Your task to perform on an android device: Go to Android settings Image 0: 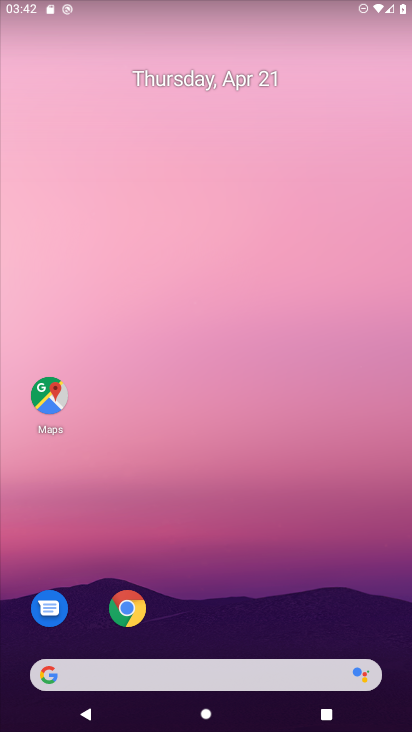
Step 0: drag from (243, 580) to (280, 249)
Your task to perform on an android device: Go to Android settings Image 1: 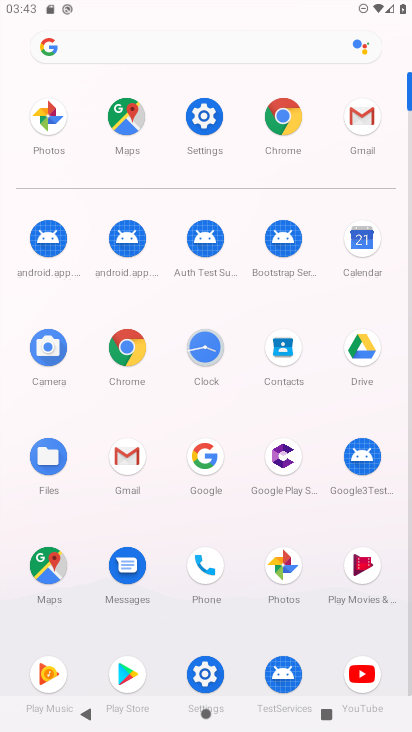
Step 1: click (207, 674)
Your task to perform on an android device: Go to Android settings Image 2: 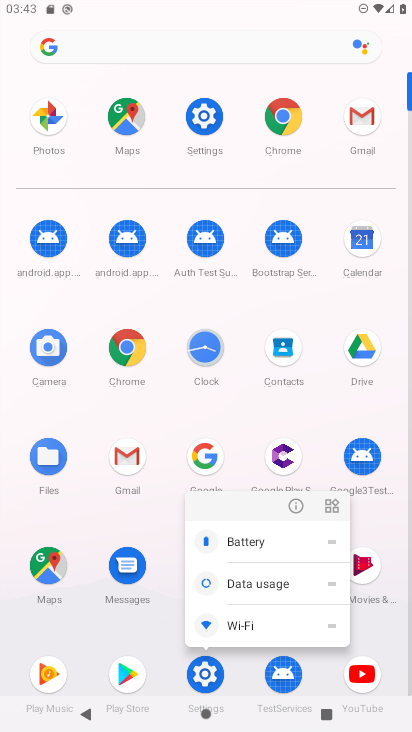
Step 2: click (205, 668)
Your task to perform on an android device: Go to Android settings Image 3: 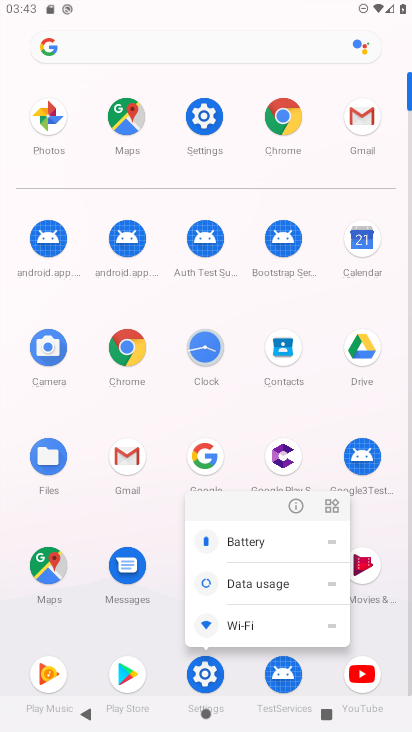
Step 3: click (205, 668)
Your task to perform on an android device: Go to Android settings Image 4: 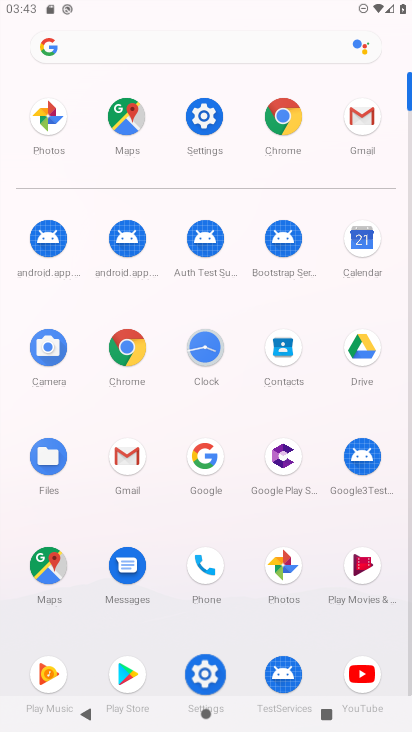
Step 4: click (205, 668)
Your task to perform on an android device: Go to Android settings Image 5: 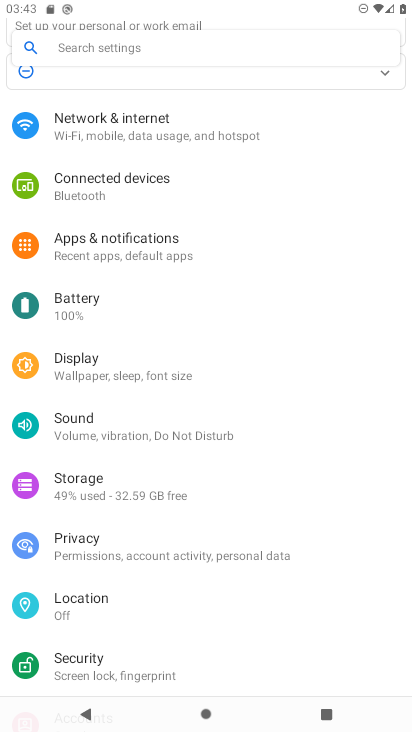
Step 5: click (228, 632)
Your task to perform on an android device: Go to Android settings Image 6: 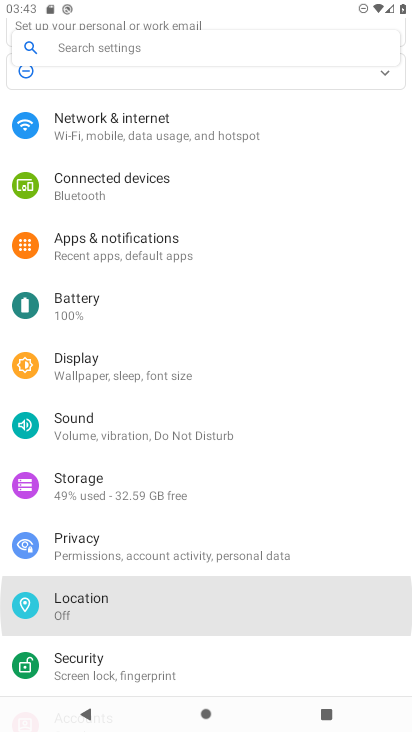
Step 6: drag from (232, 611) to (284, 89)
Your task to perform on an android device: Go to Android settings Image 7: 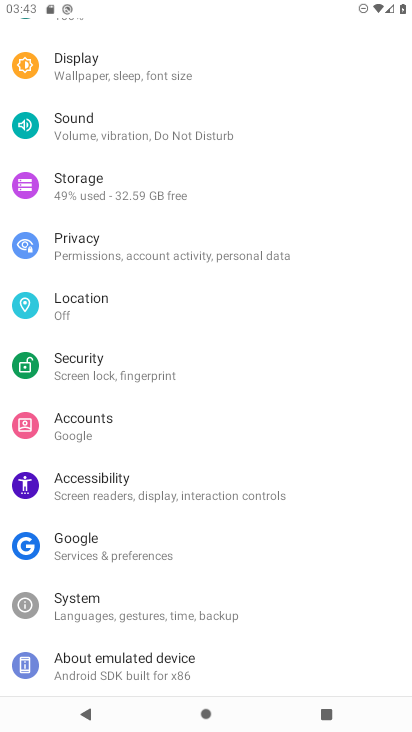
Step 7: click (161, 657)
Your task to perform on an android device: Go to Android settings Image 8: 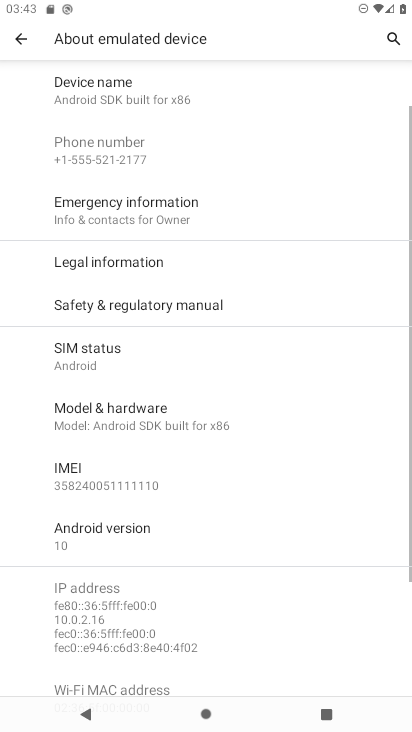
Step 8: drag from (160, 214) to (291, 102)
Your task to perform on an android device: Go to Android settings Image 9: 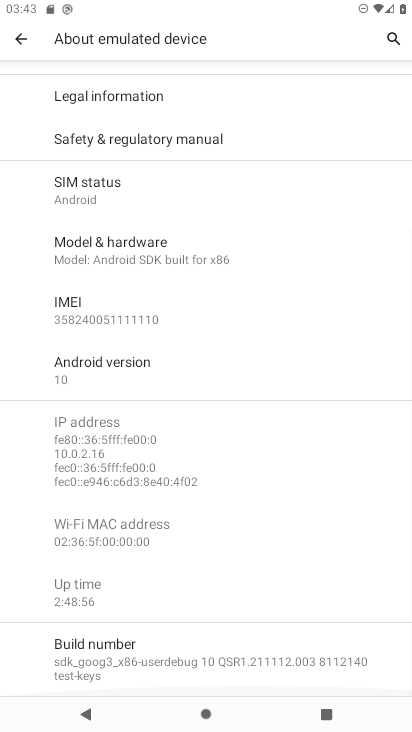
Step 9: click (142, 371)
Your task to perform on an android device: Go to Android settings Image 10: 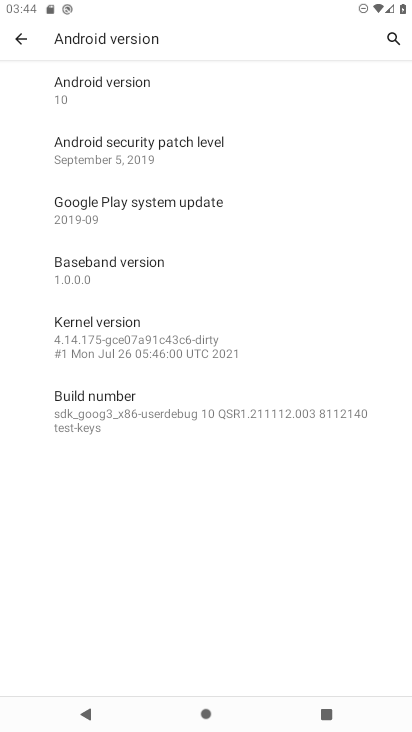
Step 10: task complete